Your task to perform on an android device: check out phone information Image 0: 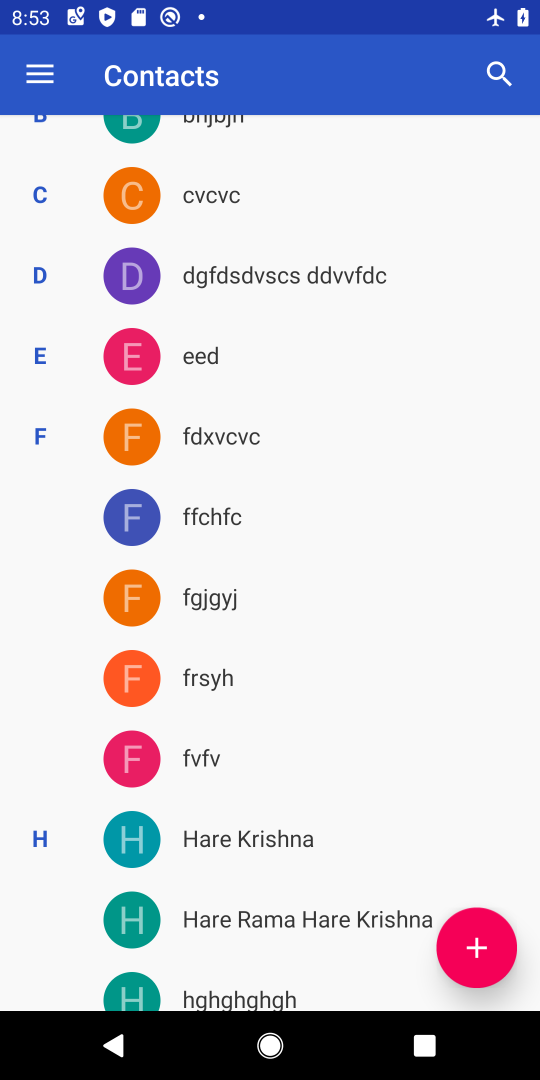
Step 0: press home button
Your task to perform on an android device: check out phone information Image 1: 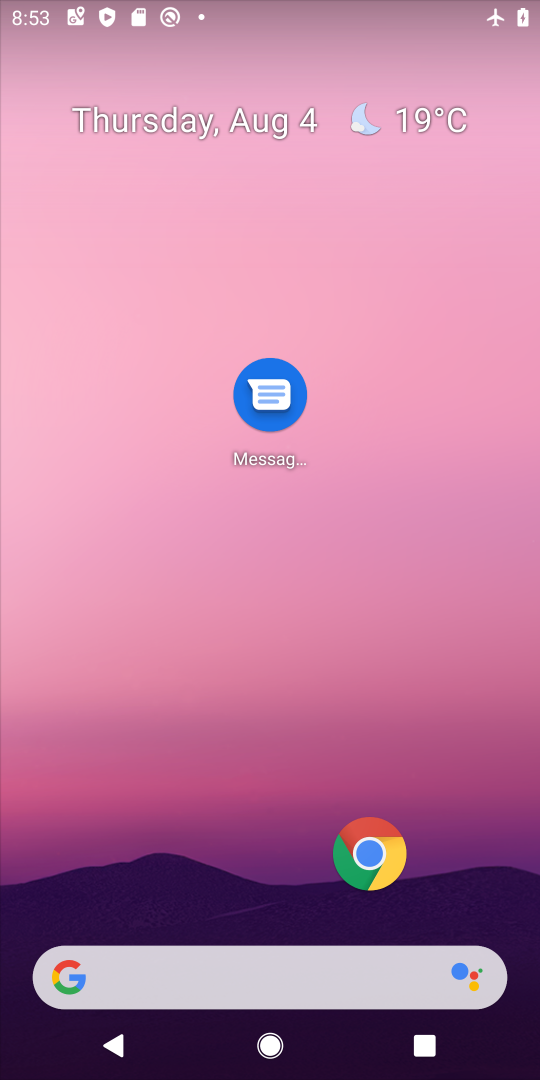
Step 1: drag from (235, 813) to (261, 403)
Your task to perform on an android device: check out phone information Image 2: 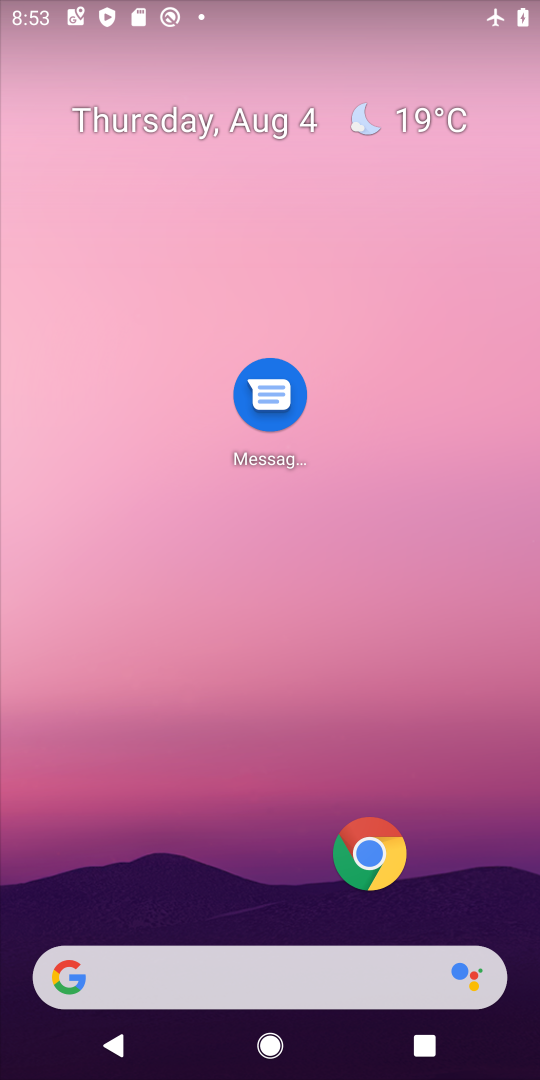
Step 2: drag from (273, 854) to (342, 389)
Your task to perform on an android device: check out phone information Image 3: 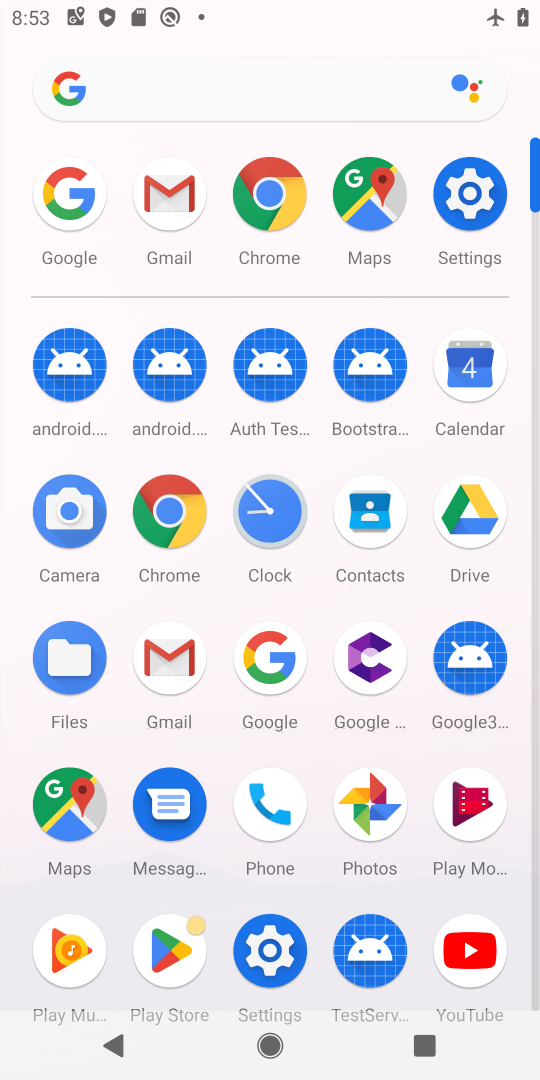
Step 3: click (277, 805)
Your task to perform on an android device: check out phone information Image 4: 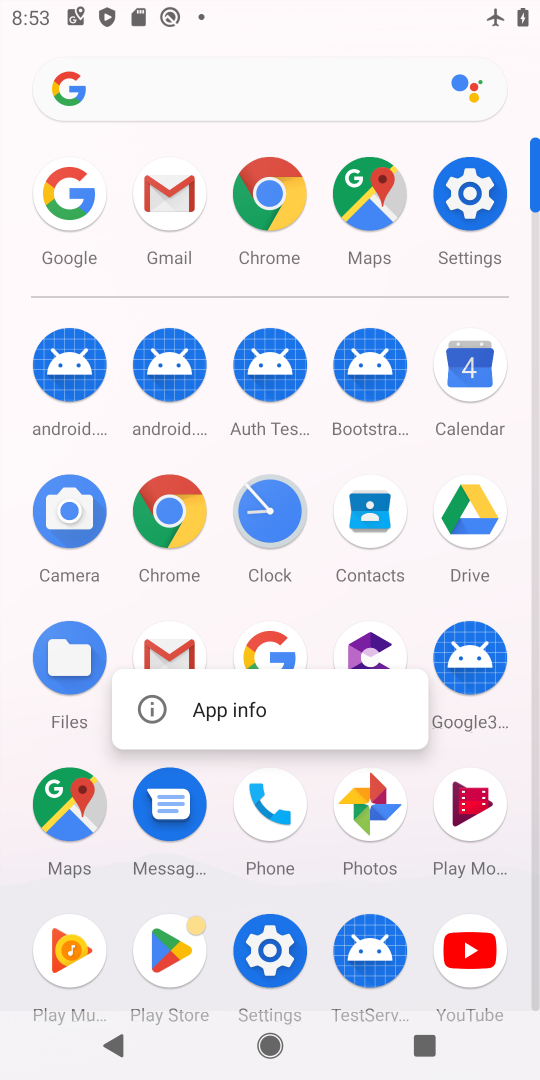
Step 4: click (233, 714)
Your task to perform on an android device: check out phone information Image 5: 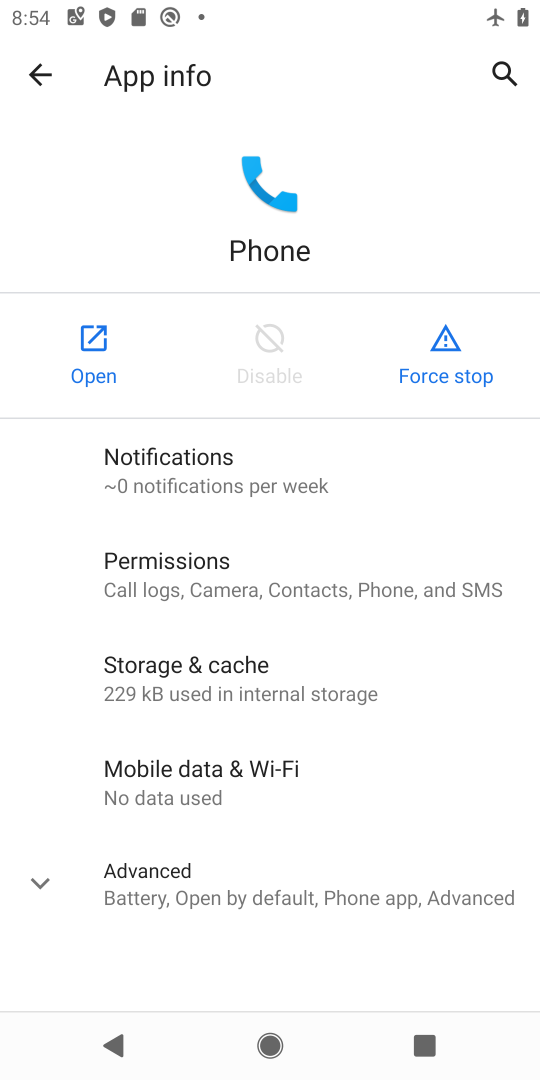
Step 5: click (189, 868)
Your task to perform on an android device: check out phone information Image 6: 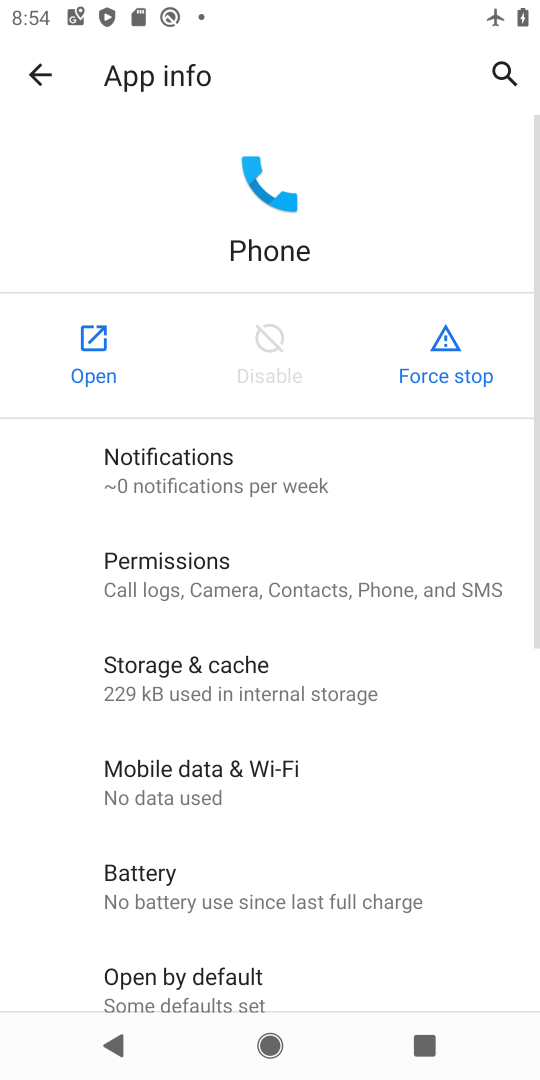
Step 6: task complete